Your task to perform on an android device: find photos in the google photos app Image 0: 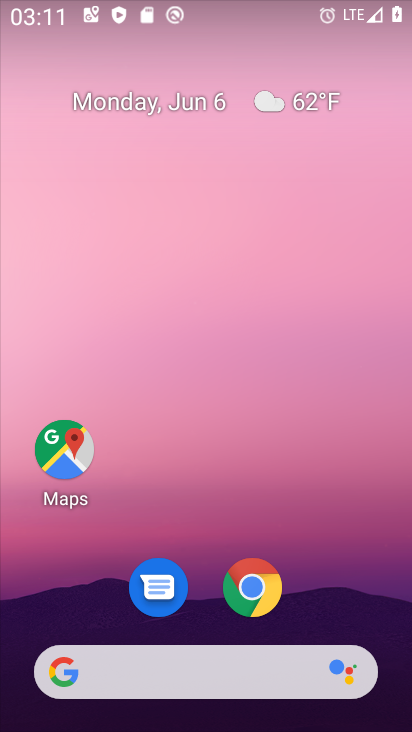
Step 0: drag from (271, 132) to (262, 38)
Your task to perform on an android device: find photos in the google photos app Image 1: 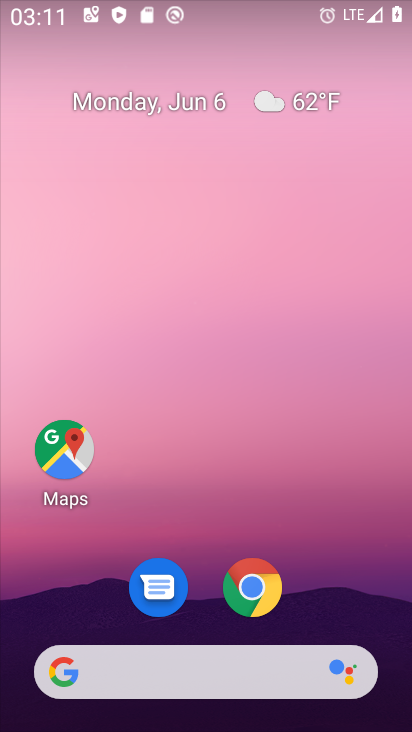
Step 1: drag from (288, 528) to (206, 34)
Your task to perform on an android device: find photos in the google photos app Image 2: 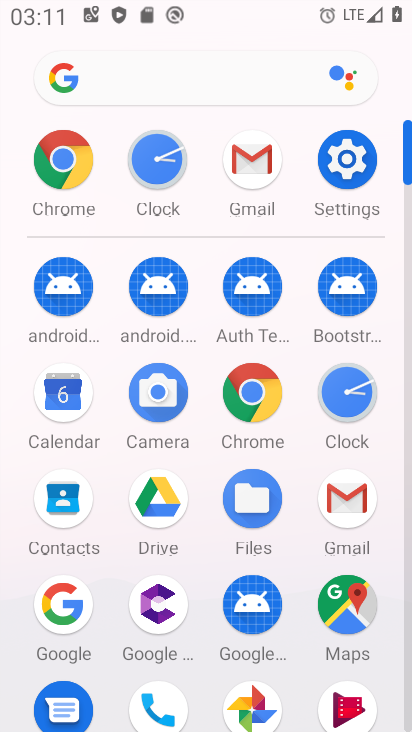
Step 2: drag from (3, 572) to (20, 304)
Your task to perform on an android device: find photos in the google photos app Image 3: 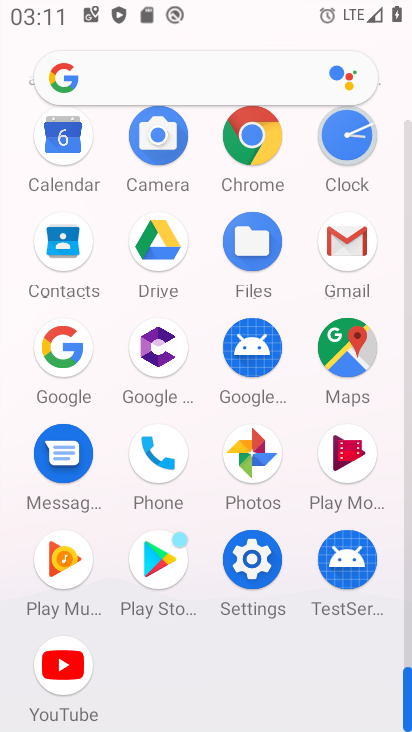
Step 3: click (248, 448)
Your task to perform on an android device: find photos in the google photos app Image 4: 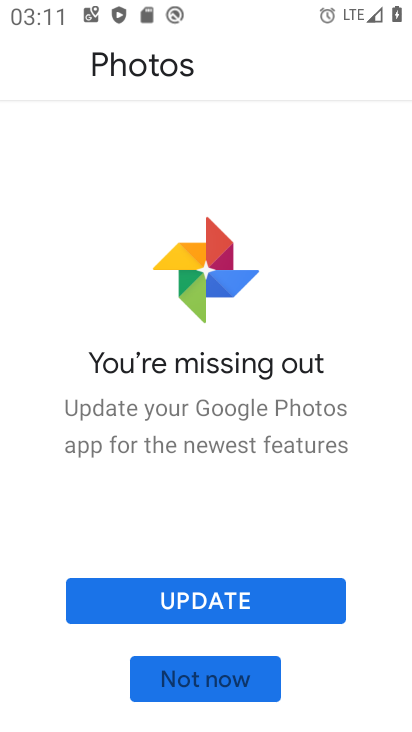
Step 4: click (217, 600)
Your task to perform on an android device: find photos in the google photos app Image 5: 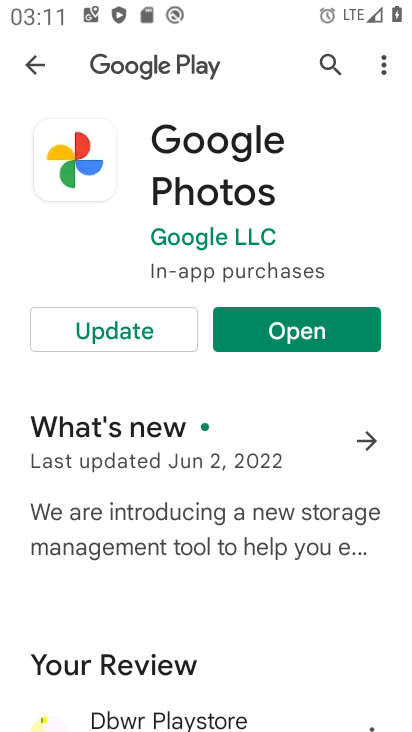
Step 5: click (148, 324)
Your task to perform on an android device: find photos in the google photos app Image 6: 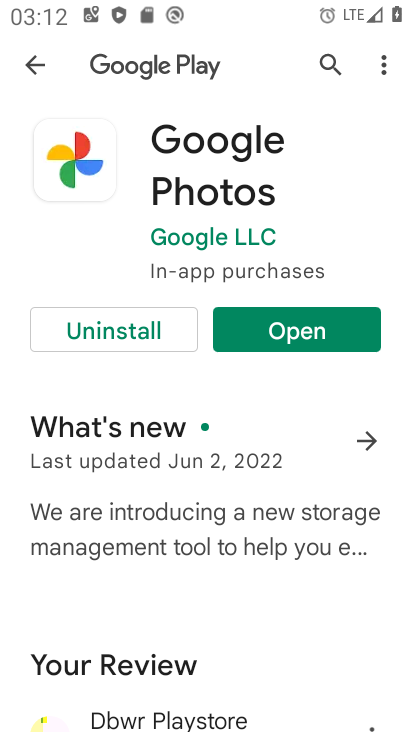
Step 6: click (270, 331)
Your task to perform on an android device: find photos in the google photos app Image 7: 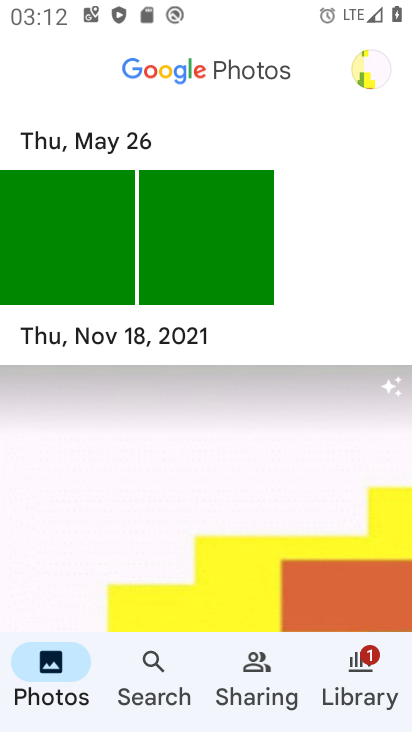
Step 7: task complete